Your task to perform on an android device: set the timer Image 0: 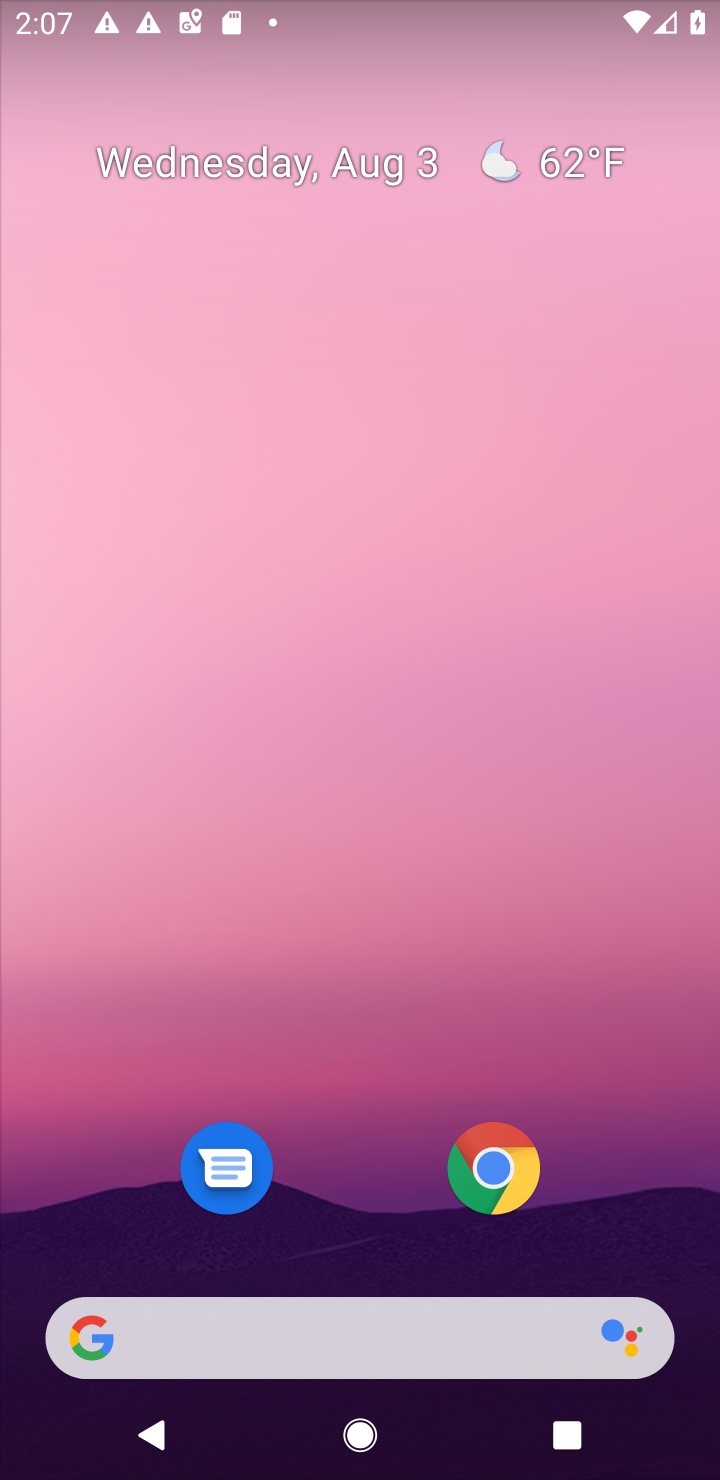
Step 0: drag from (640, 1094) to (573, 329)
Your task to perform on an android device: set the timer Image 1: 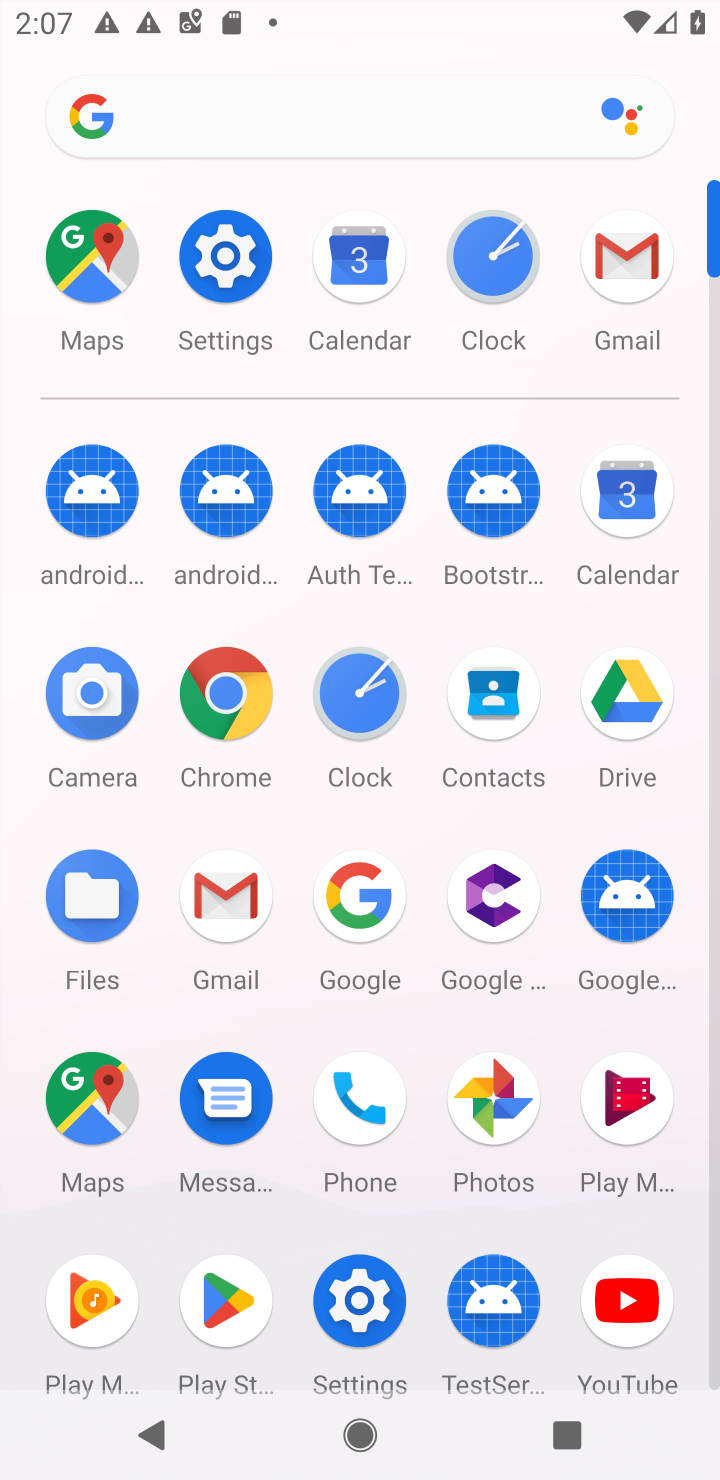
Step 1: click (353, 704)
Your task to perform on an android device: set the timer Image 2: 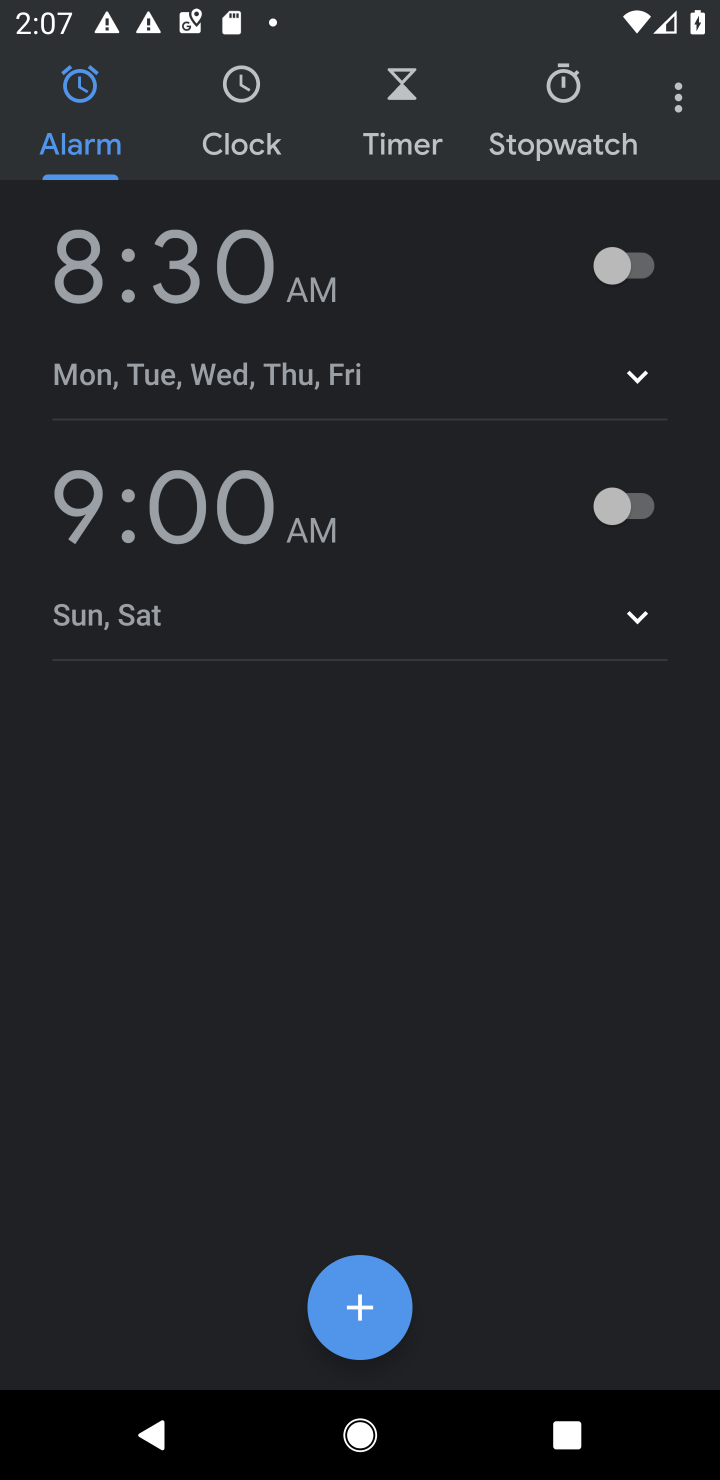
Step 2: click (403, 137)
Your task to perform on an android device: set the timer Image 3: 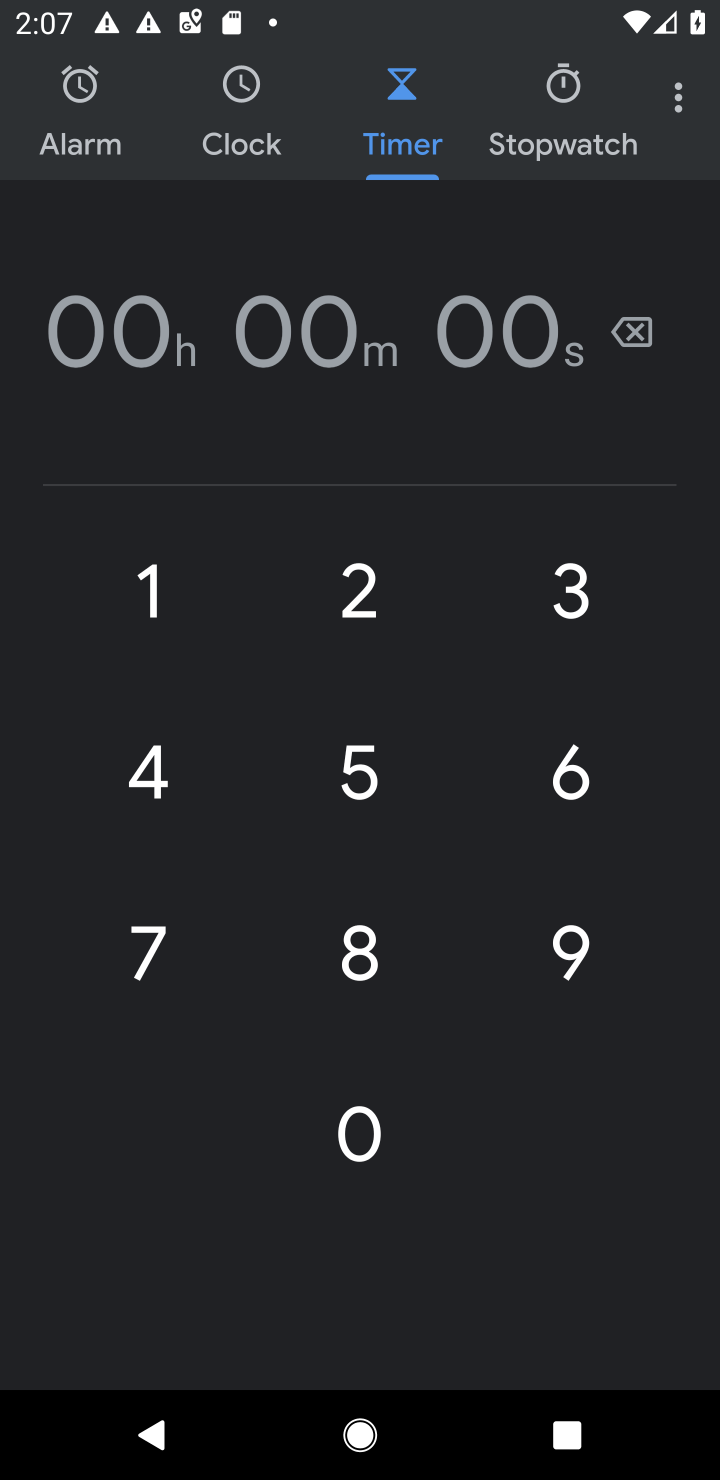
Step 3: click (141, 590)
Your task to perform on an android device: set the timer Image 4: 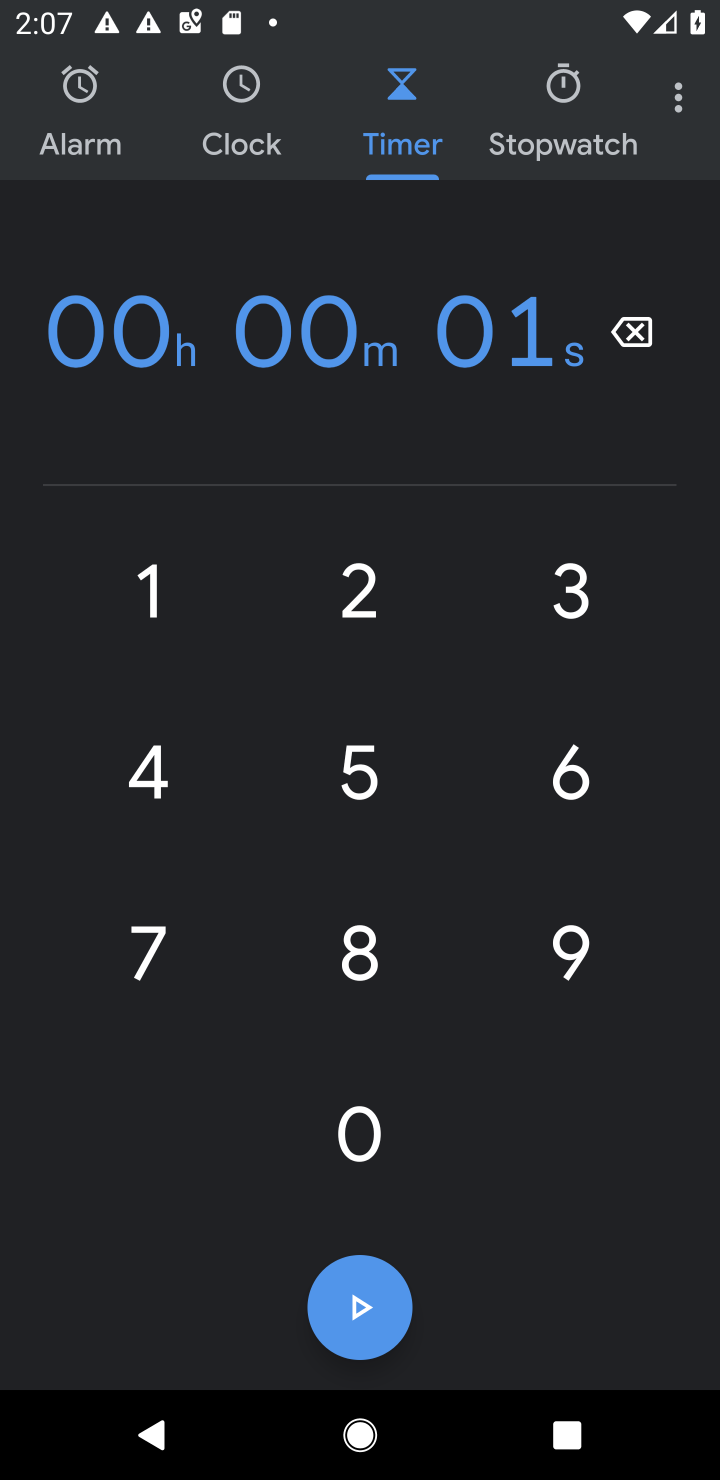
Step 4: click (584, 617)
Your task to perform on an android device: set the timer Image 5: 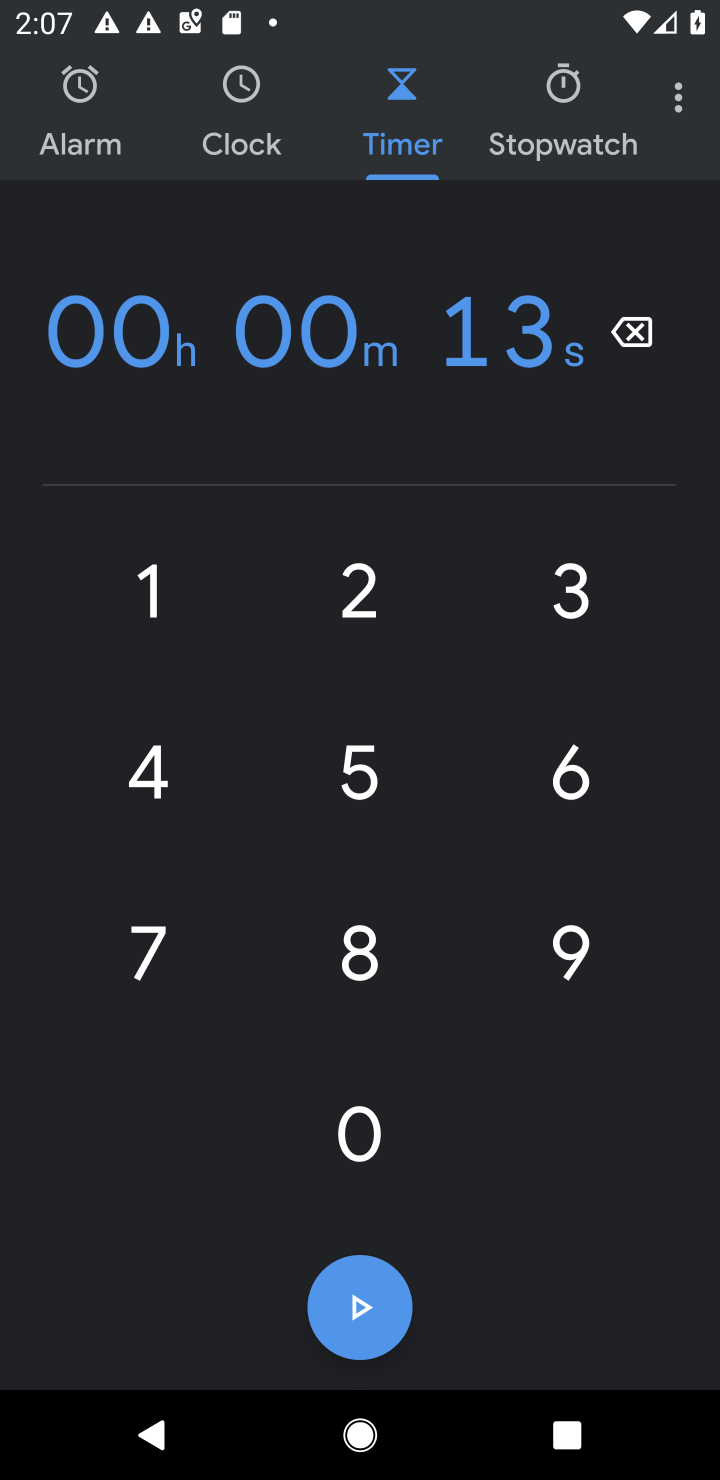
Step 5: click (364, 1142)
Your task to perform on an android device: set the timer Image 6: 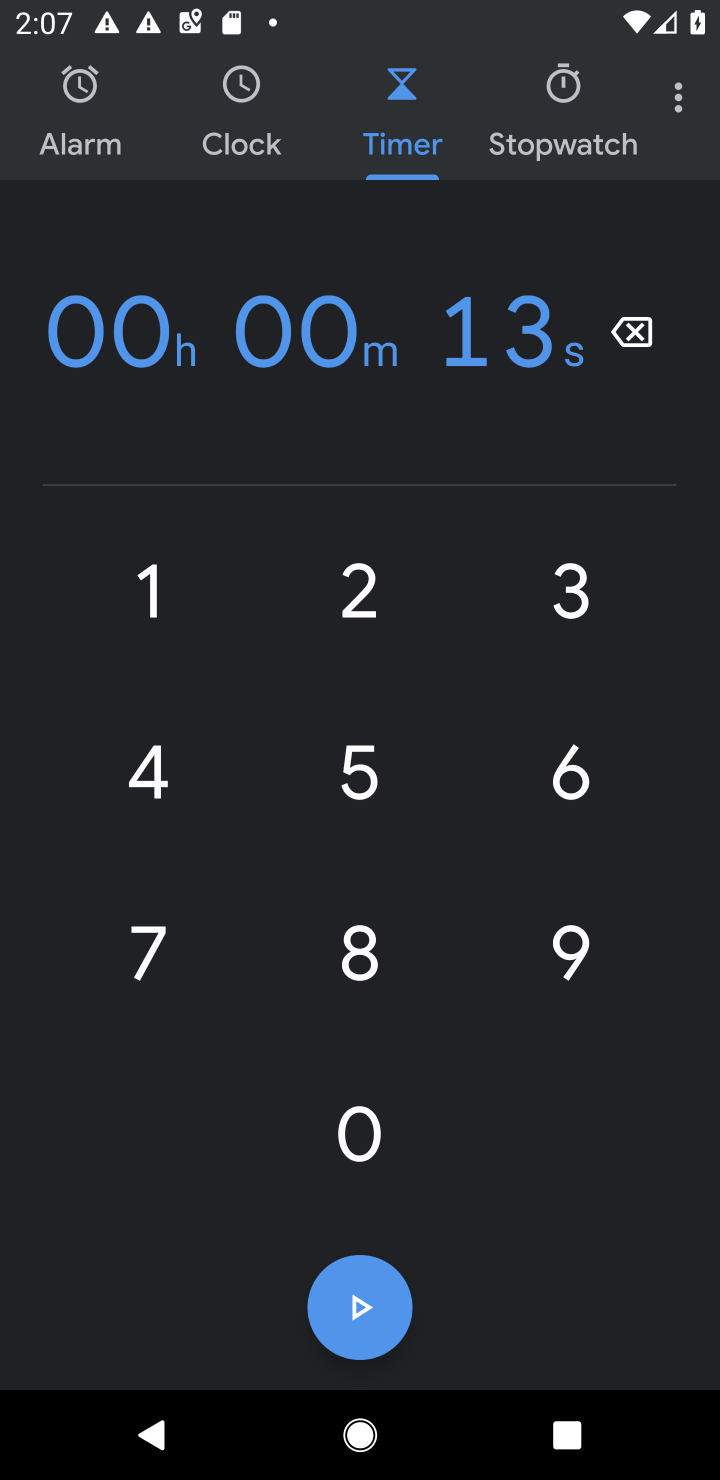
Step 6: click (364, 1142)
Your task to perform on an android device: set the timer Image 7: 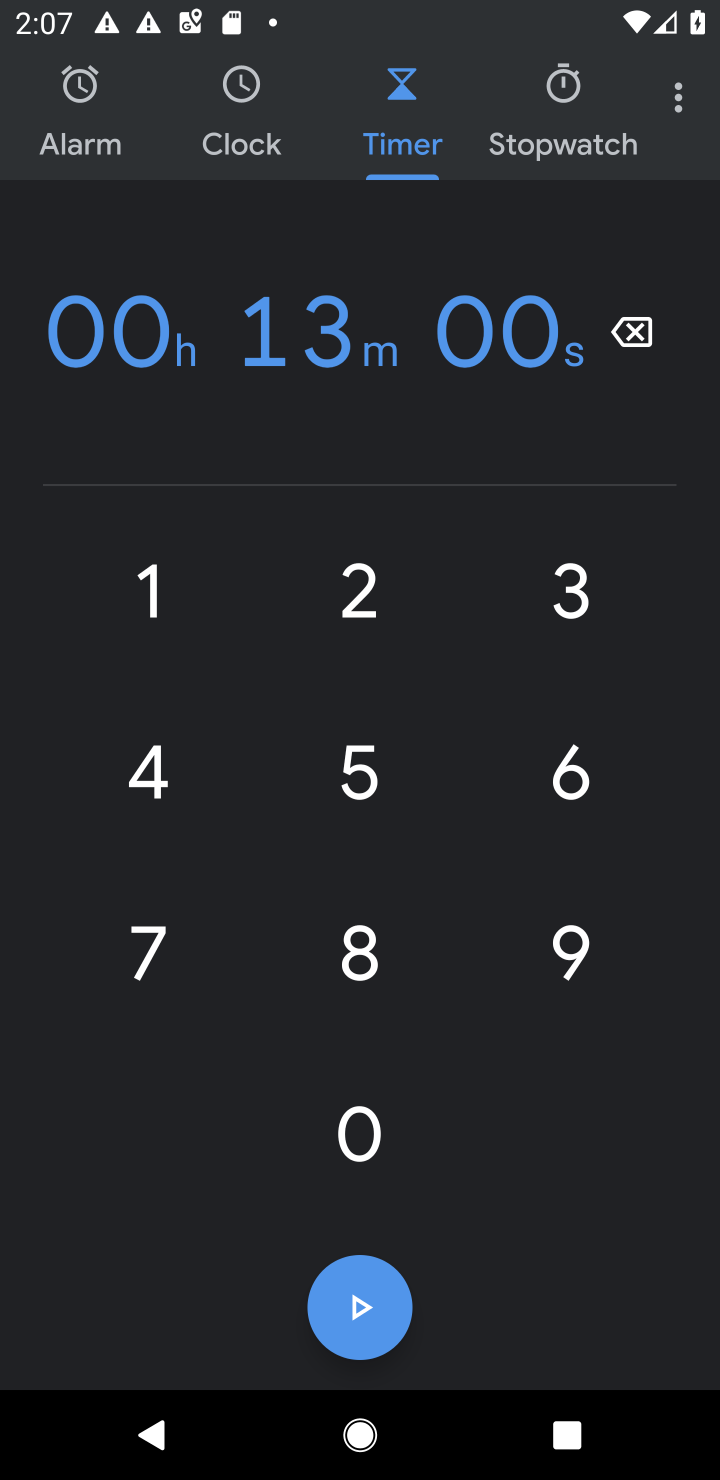
Step 7: click (364, 1142)
Your task to perform on an android device: set the timer Image 8: 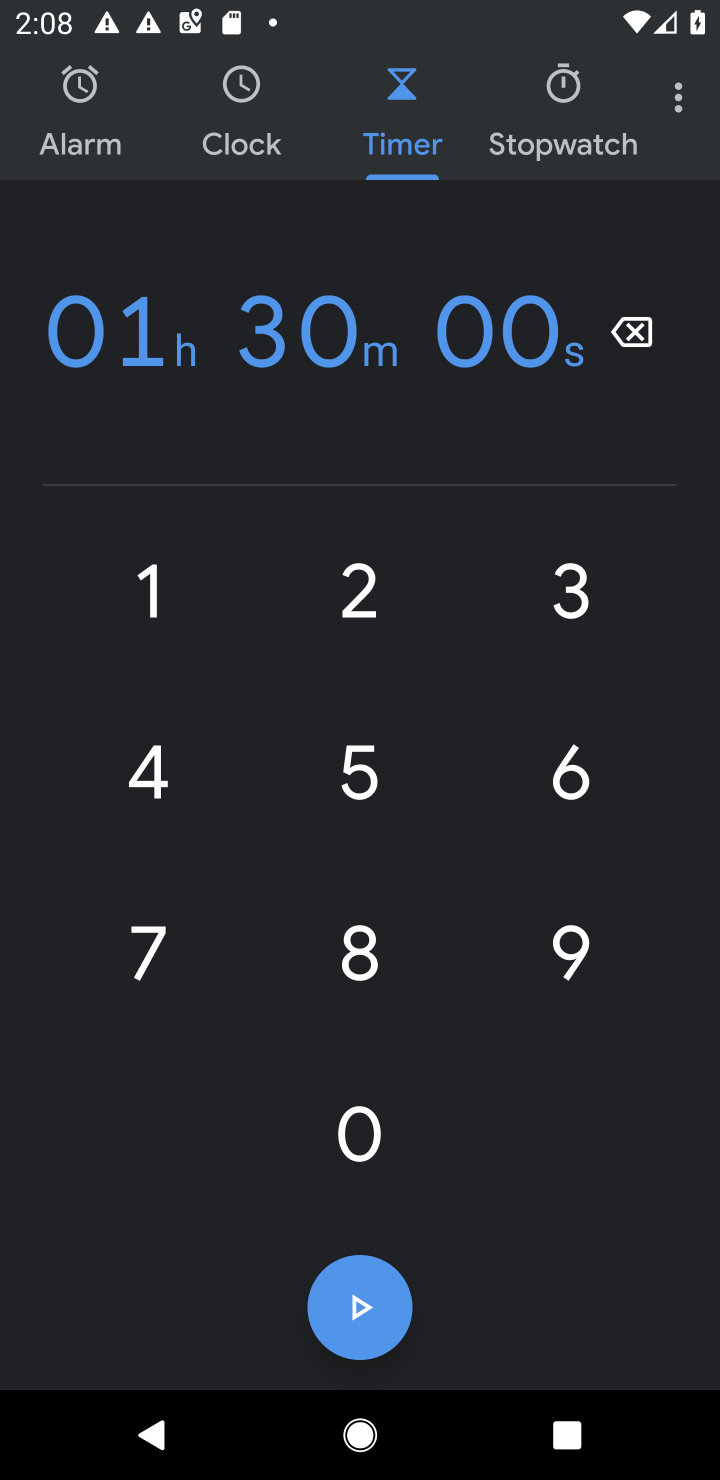
Step 8: task complete